Your task to perform on an android device: What's the weather like in Moscow? Image 0: 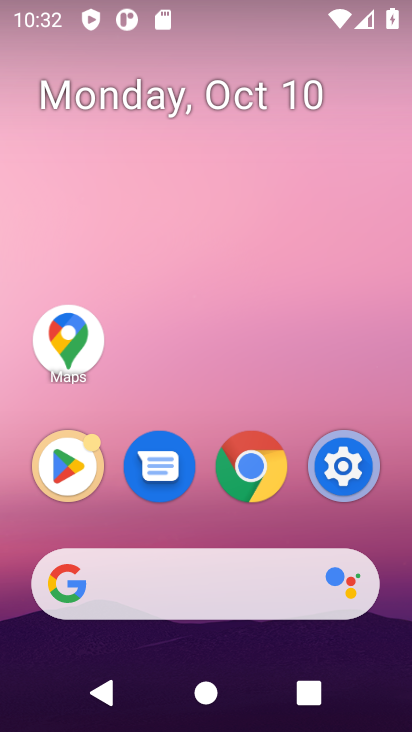
Step 0: click (68, 583)
Your task to perform on an android device: What's the weather like in Moscow? Image 1: 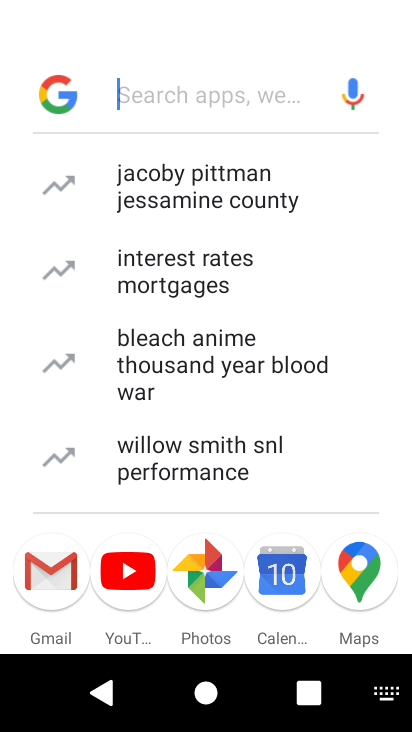
Step 1: type " weather like in Moscow?"
Your task to perform on an android device: What's the weather like in Moscow? Image 2: 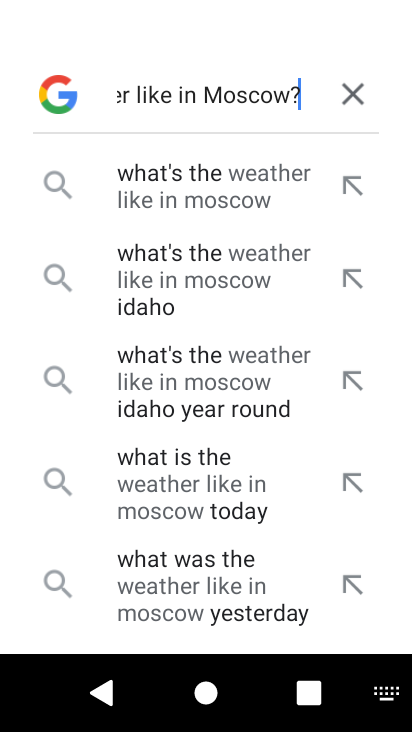
Step 2: press enter
Your task to perform on an android device: What's the weather like in Moscow? Image 3: 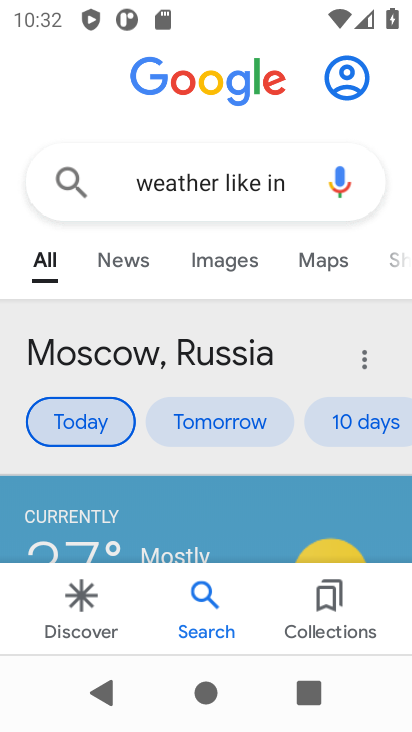
Step 3: task complete